Your task to perform on an android device: open app "Microsoft Outlook" Image 0: 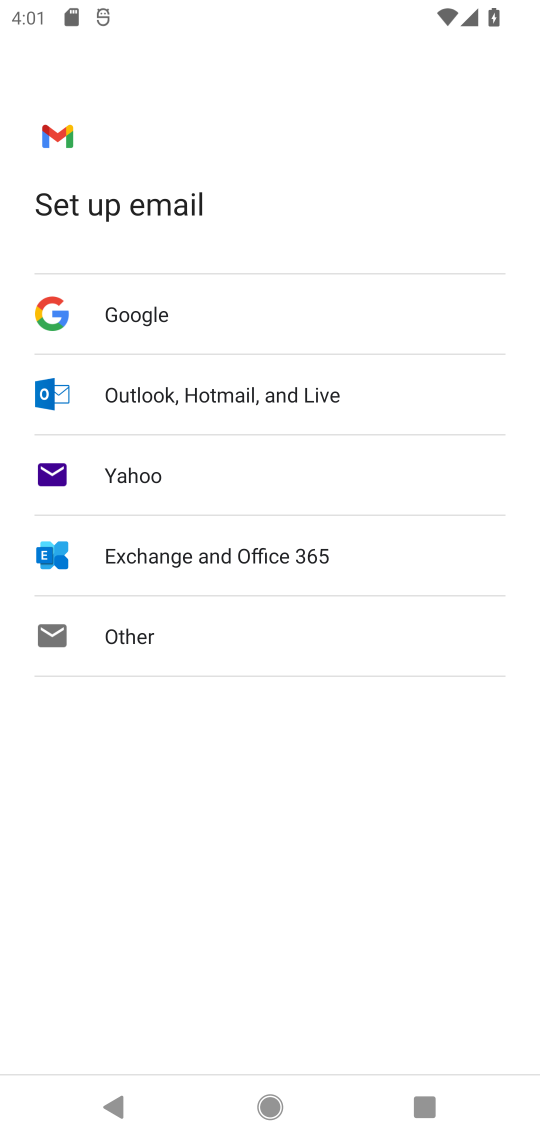
Step 0: press home button
Your task to perform on an android device: open app "Microsoft Outlook" Image 1: 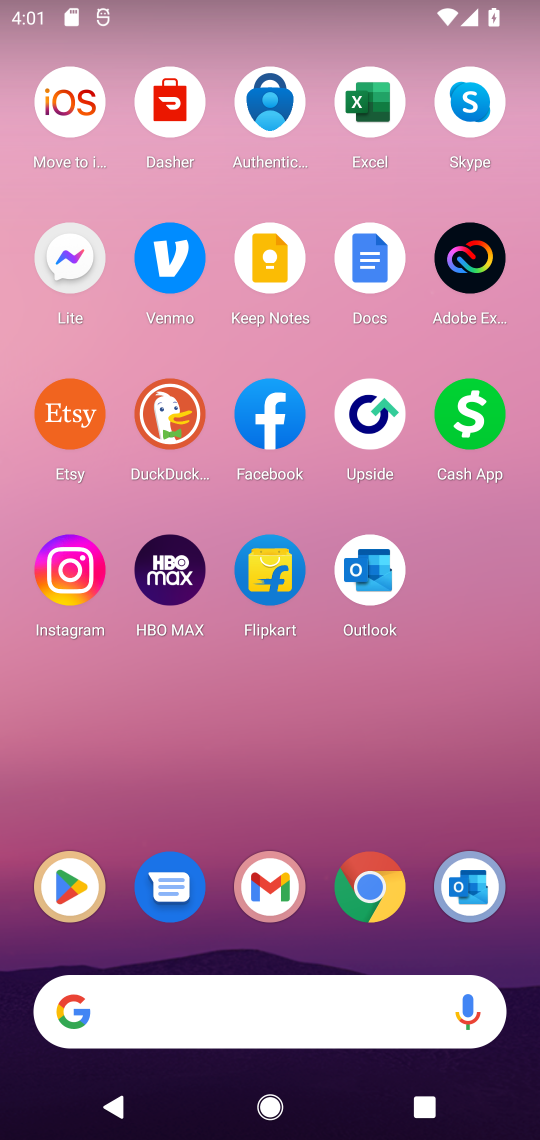
Step 1: click (69, 893)
Your task to perform on an android device: open app "Microsoft Outlook" Image 2: 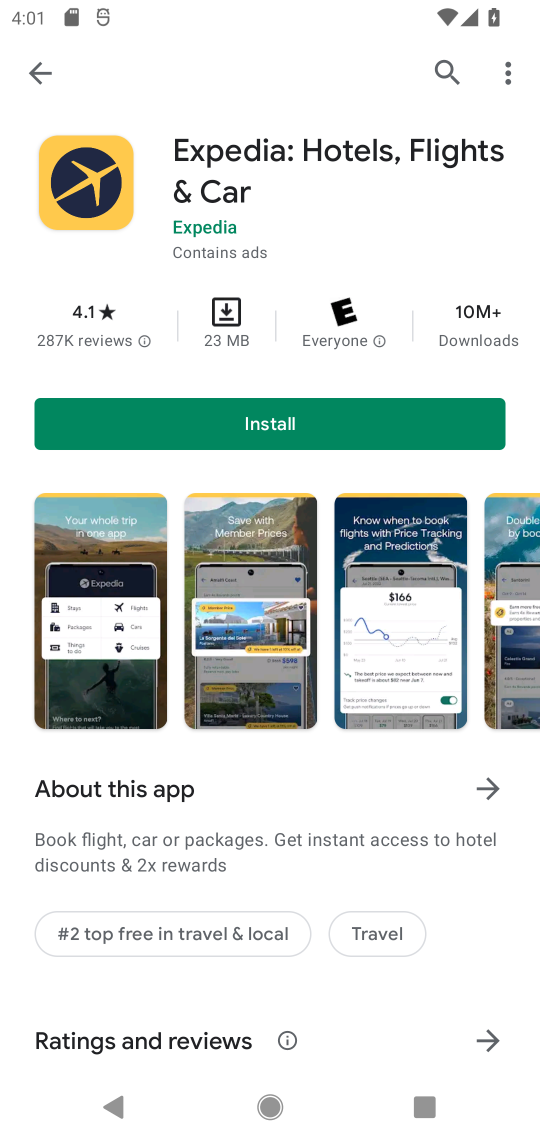
Step 2: click (31, 76)
Your task to perform on an android device: open app "Microsoft Outlook" Image 3: 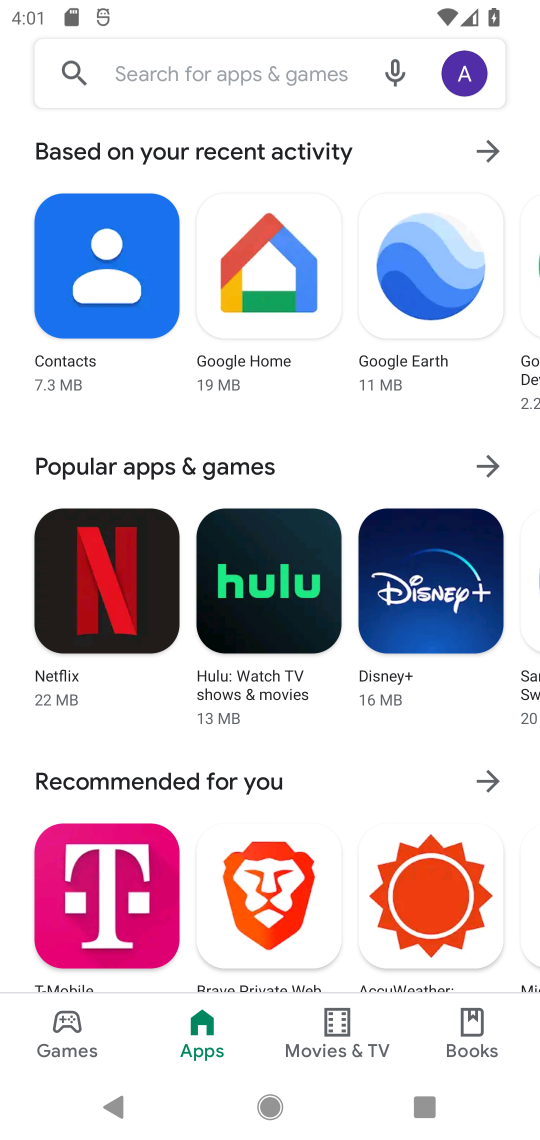
Step 3: click (105, 51)
Your task to perform on an android device: open app "Microsoft Outlook" Image 4: 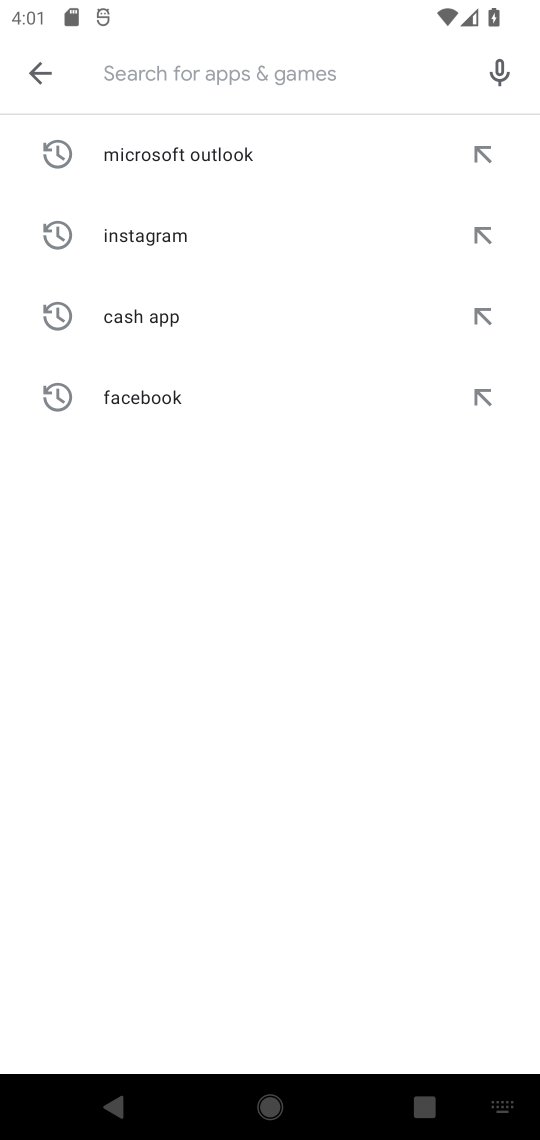
Step 4: click (132, 161)
Your task to perform on an android device: open app "Microsoft Outlook" Image 5: 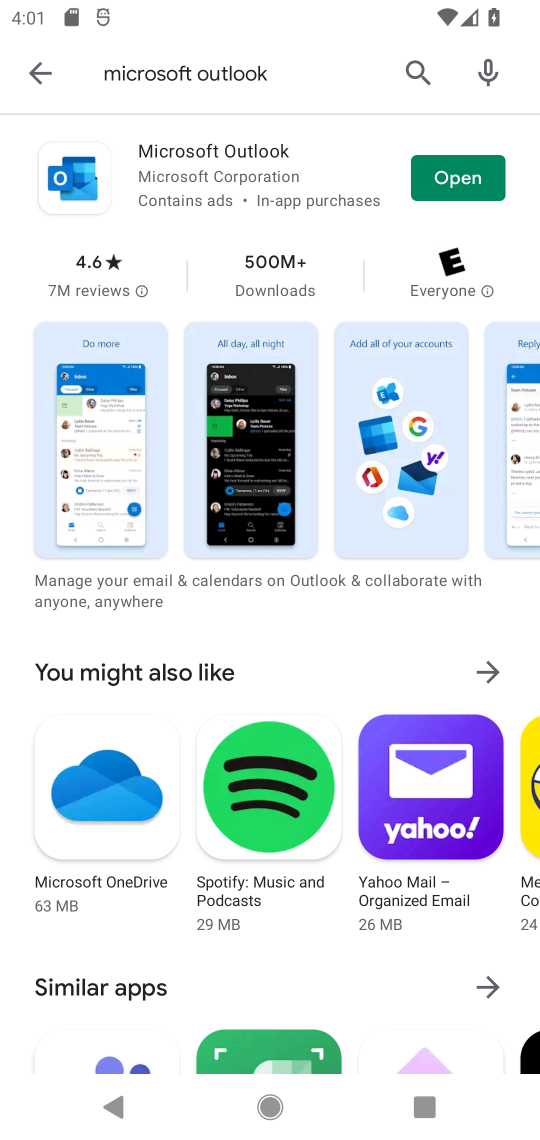
Step 5: click (451, 168)
Your task to perform on an android device: open app "Microsoft Outlook" Image 6: 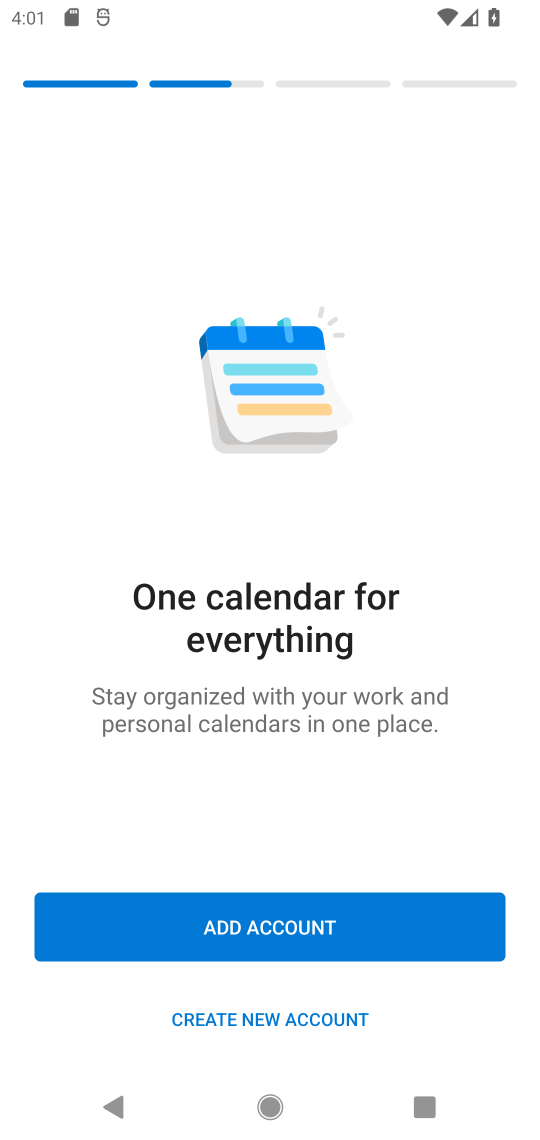
Step 6: task complete